Your task to perform on an android device: toggle priority inbox in the gmail app Image 0: 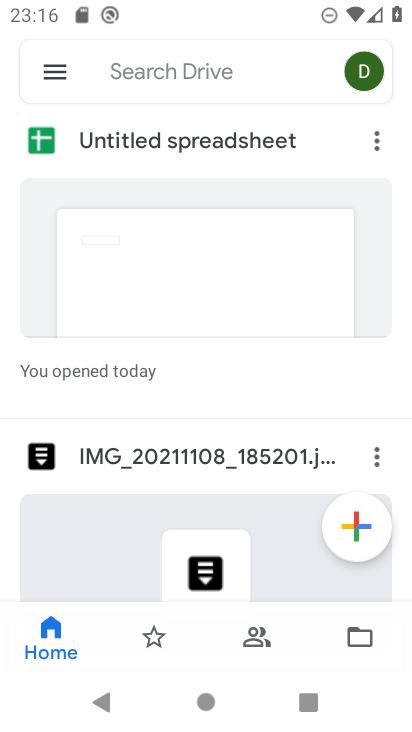
Step 0: press home button
Your task to perform on an android device: toggle priority inbox in the gmail app Image 1: 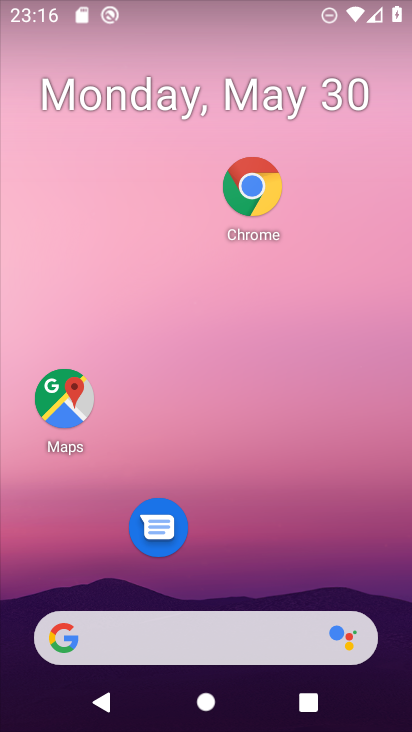
Step 1: drag from (273, 371) to (274, 171)
Your task to perform on an android device: toggle priority inbox in the gmail app Image 2: 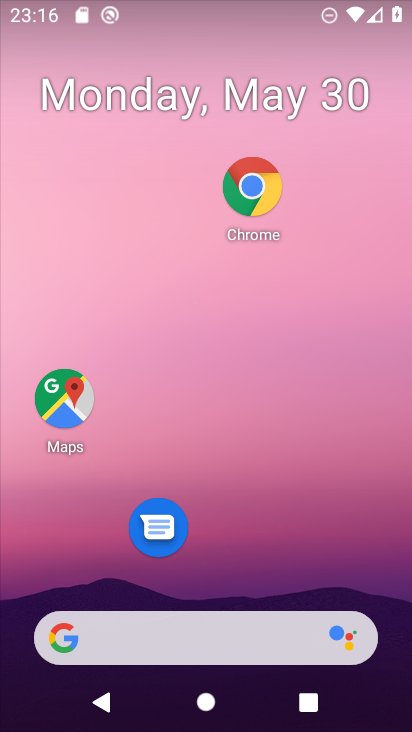
Step 2: drag from (262, 558) to (239, 136)
Your task to perform on an android device: toggle priority inbox in the gmail app Image 3: 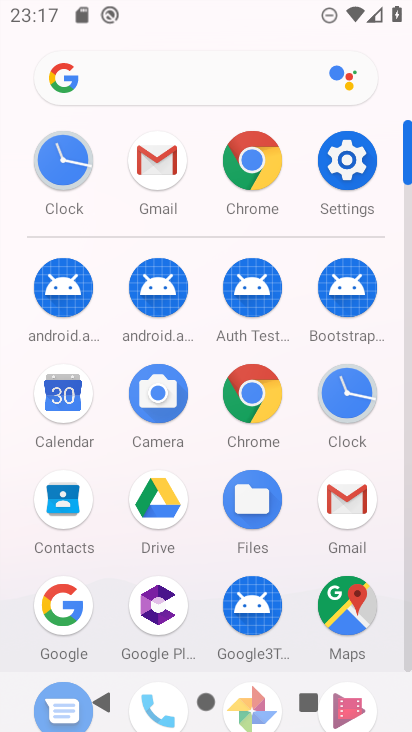
Step 3: click (151, 153)
Your task to perform on an android device: toggle priority inbox in the gmail app Image 4: 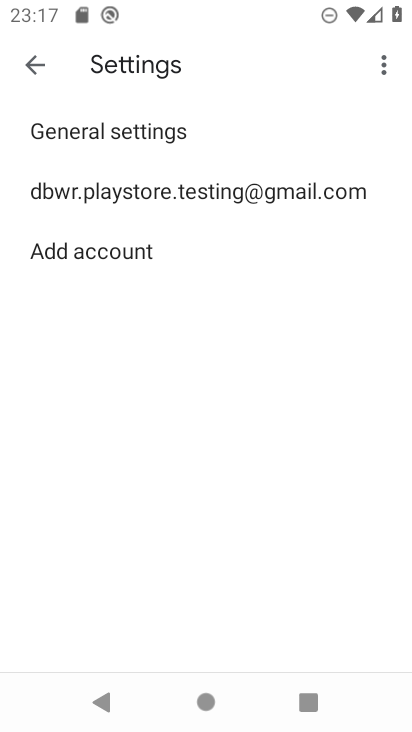
Step 4: click (136, 180)
Your task to perform on an android device: toggle priority inbox in the gmail app Image 5: 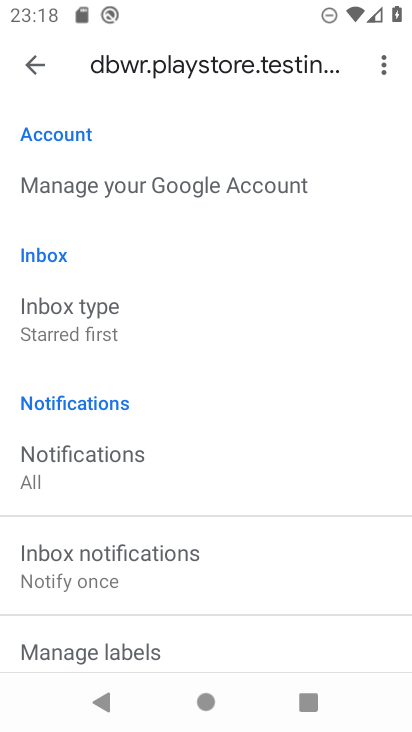
Step 5: drag from (205, 508) to (213, 307)
Your task to perform on an android device: toggle priority inbox in the gmail app Image 6: 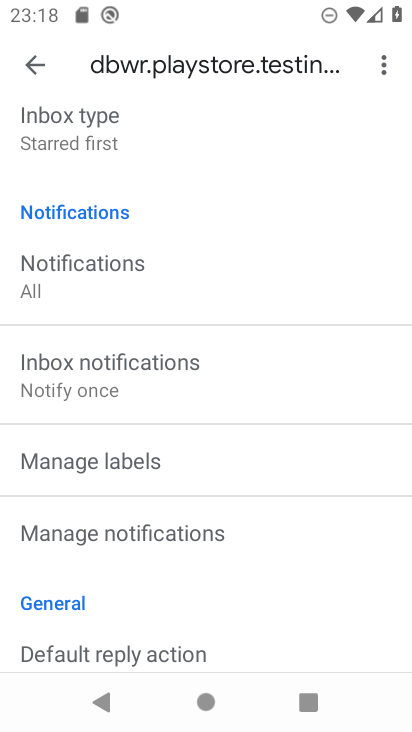
Step 6: drag from (212, 585) to (271, 224)
Your task to perform on an android device: toggle priority inbox in the gmail app Image 7: 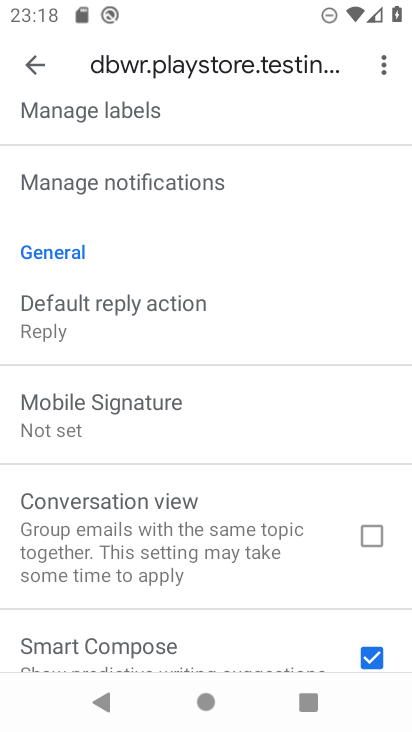
Step 7: drag from (204, 164) to (193, 568)
Your task to perform on an android device: toggle priority inbox in the gmail app Image 8: 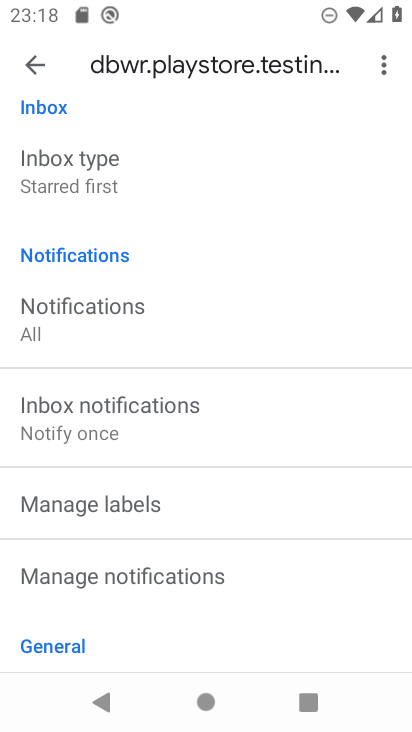
Step 8: click (92, 180)
Your task to perform on an android device: toggle priority inbox in the gmail app Image 9: 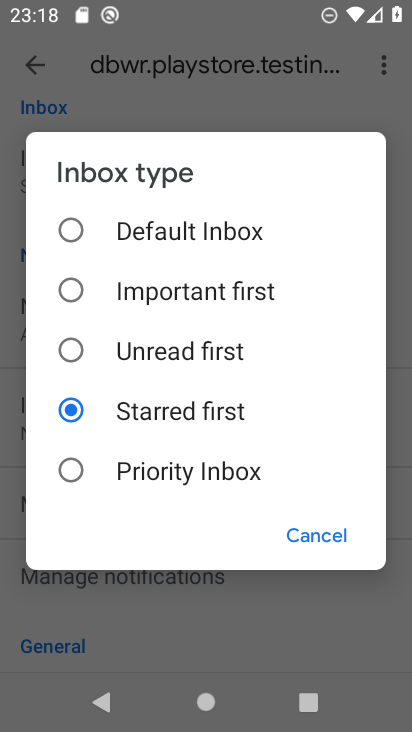
Step 9: click (189, 481)
Your task to perform on an android device: toggle priority inbox in the gmail app Image 10: 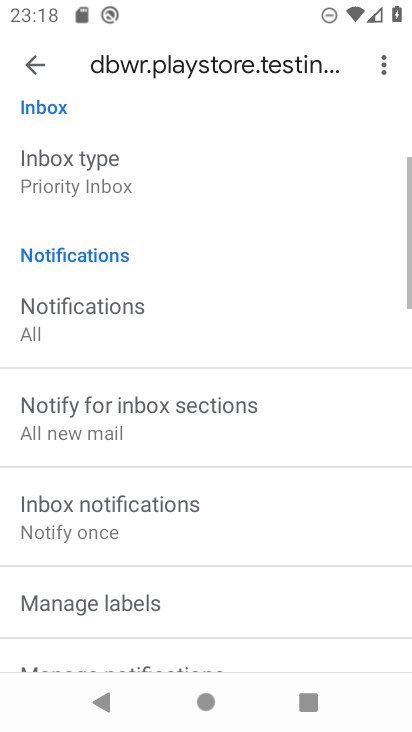
Step 10: task complete